Your task to perform on an android device: turn on bluetooth scan Image 0: 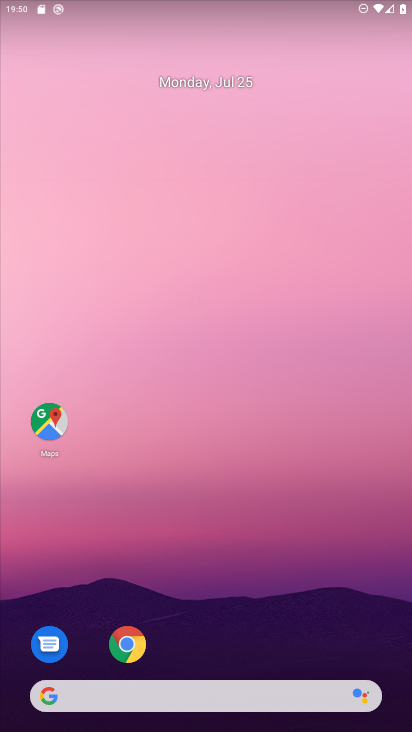
Step 0: press home button
Your task to perform on an android device: turn on bluetooth scan Image 1: 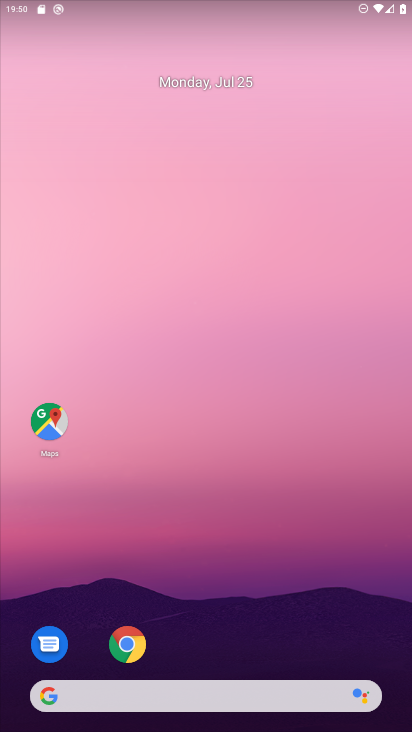
Step 1: drag from (217, 661) to (245, 87)
Your task to perform on an android device: turn on bluetooth scan Image 2: 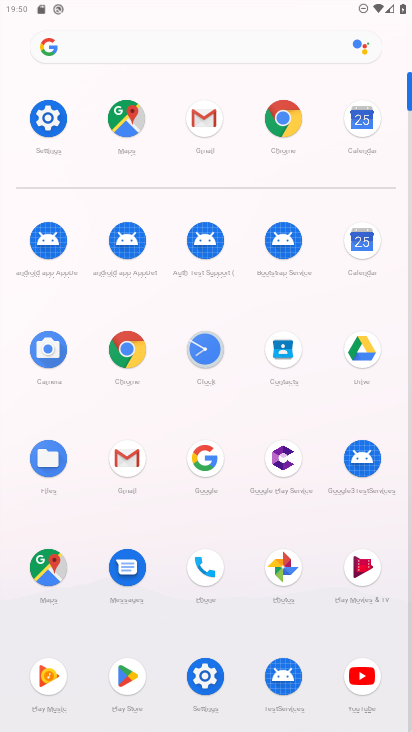
Step 2: click (45, 111)
Your task to perform on an android device: turn on bluetooth scan Image 3: 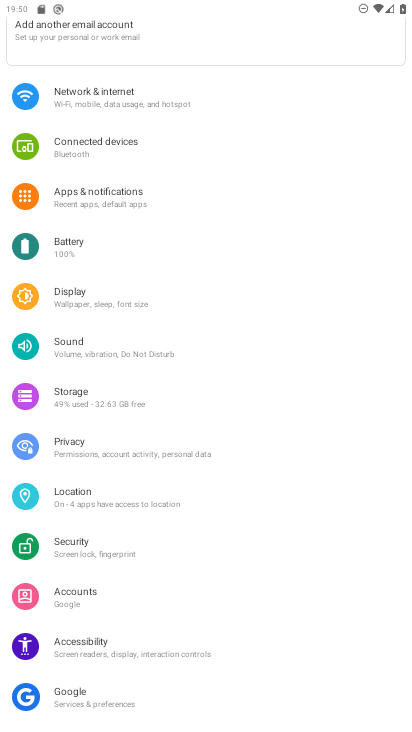
Step 3: click (101, 492)
Your task to perform on an android device: turn on bluetooth scan Image 4: 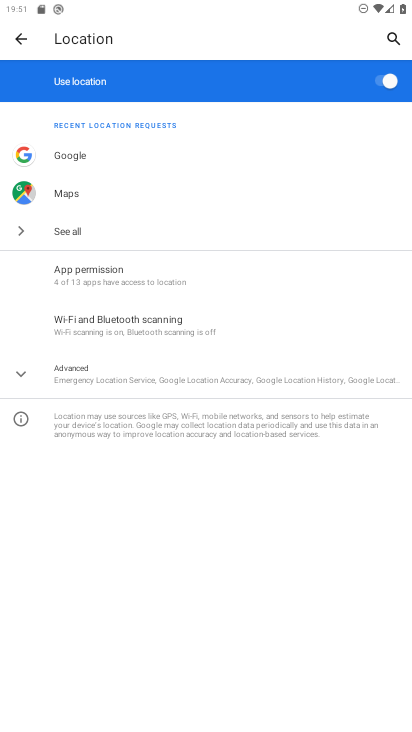
Step 4: click (109, 316)
Your task to perform on an android device: turn on bluetooth scan Image 5: 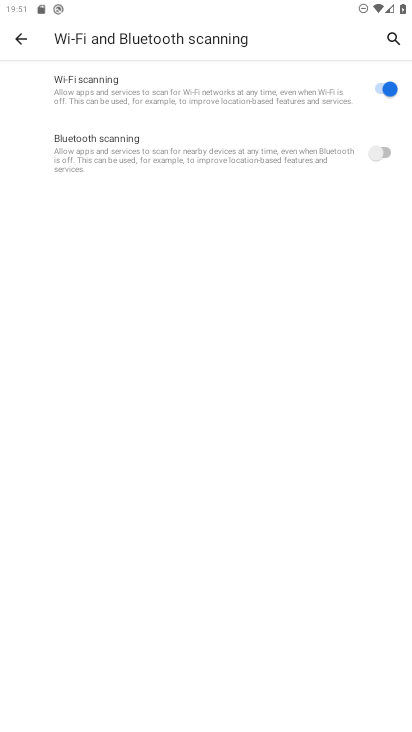
Step 5: click (378, 147)
Your task to perform on an android device: turn on bluetooth scan Image 6: 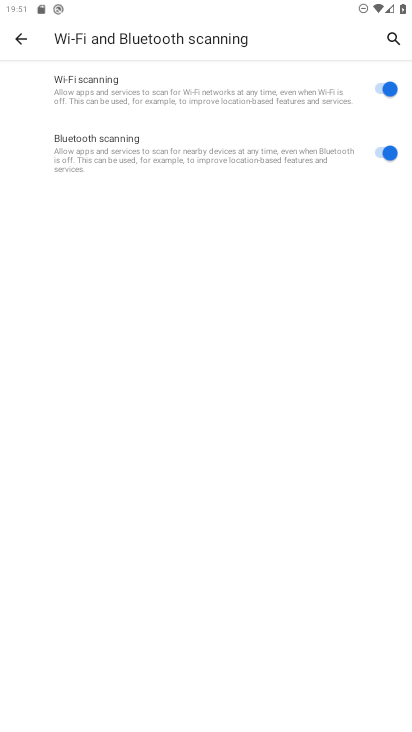
Step 6: task complete